Your task to perform on an android device: toggle improve location accuracy Image 0: 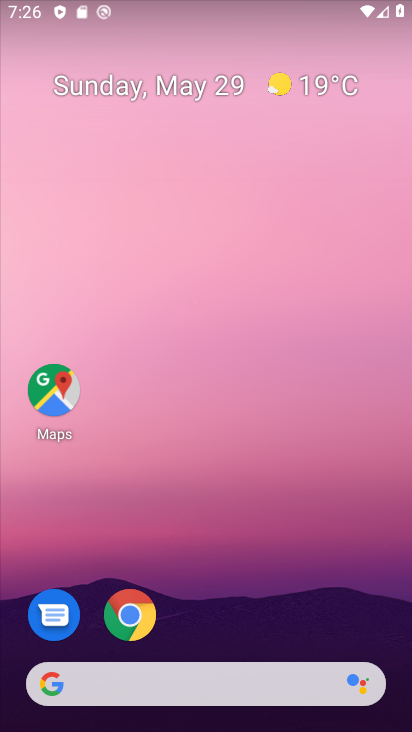
Step 0: drag from (129, 731) to (153, 6)
Your task to perform on an android device: toggle improve location accuracy Image 1: 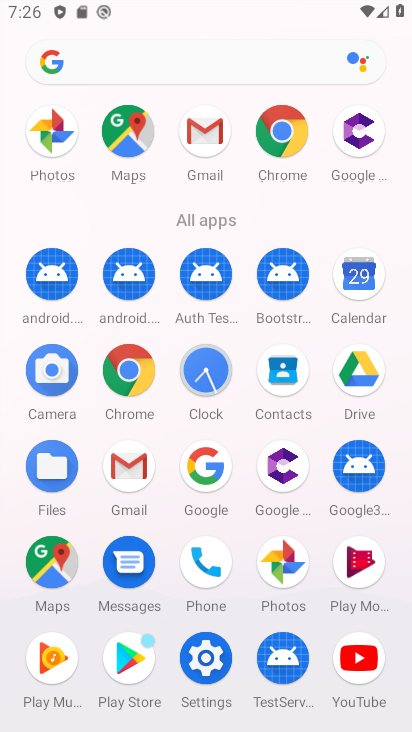
Step 1: click (194, 669)
Your task to perform on an android device: toggle improve location accuracy Image 2: 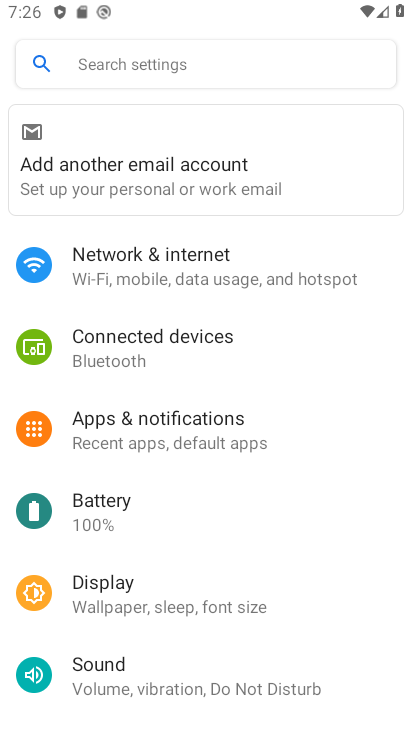
Step 2: drag from (330, 664) to (342, 287)
Your task to perform on an android device: toggle improve location accuracy Image 3: 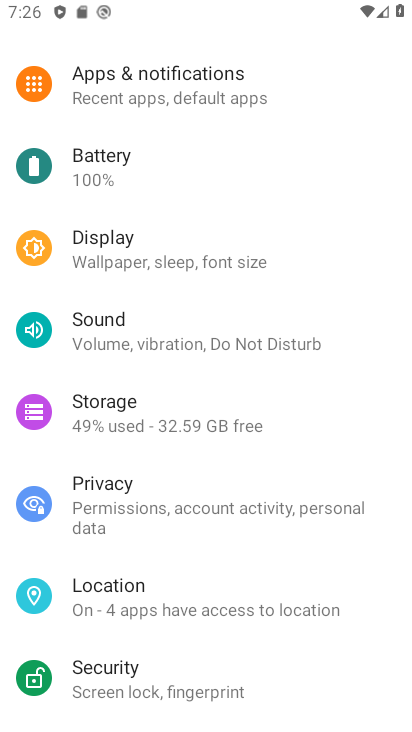
Step 3: click (150, 603)
Your task to perform on an android device: toggle improve location accuracy Image 4: 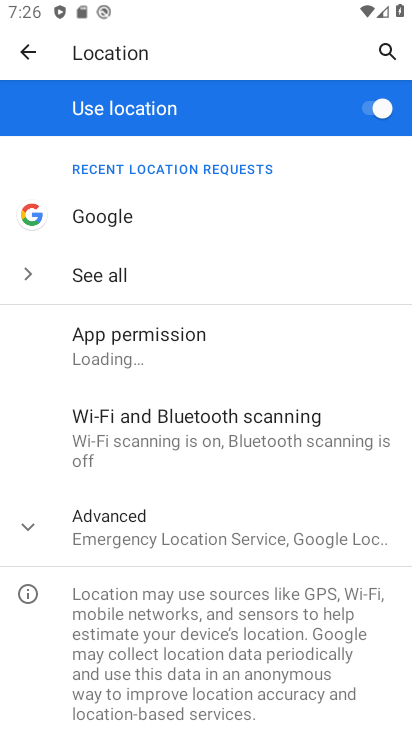
Step 4: click (171, 535)
Your task to perform on an android device: toggle improve location accuracy Image 5: 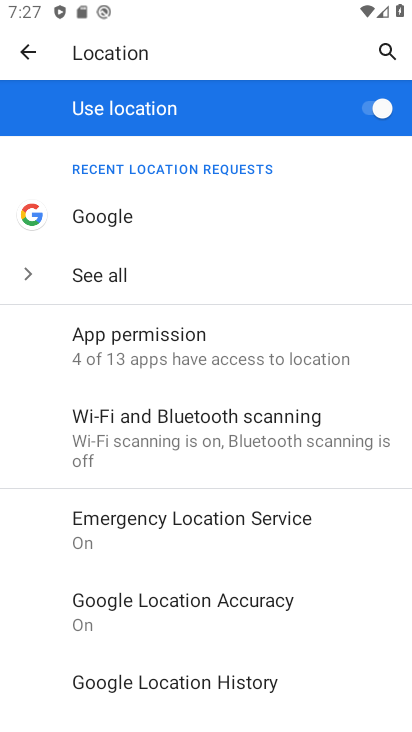
Step 5: drag from (196, 658) to (215, 311)
Your task to perform on an android device: toggle improve location accuracy Image 6: 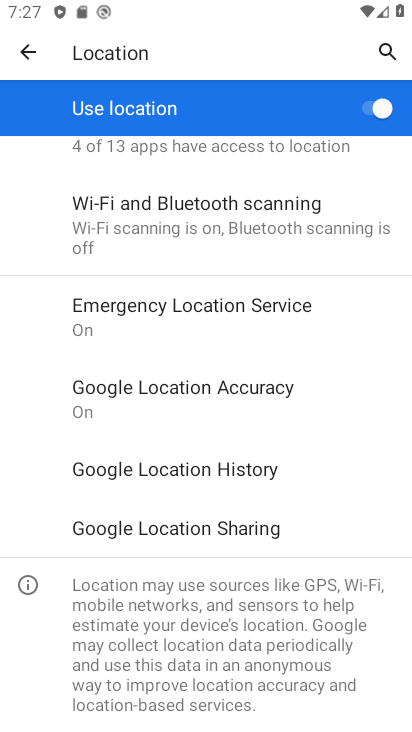
Step 6: click (187, 396)
Your task to perform on an android device: toggle improve location accuracy Image 7: 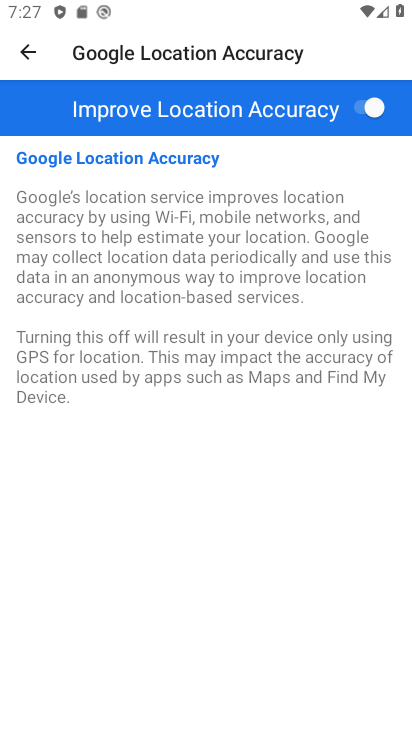
Step 7: click (369, 105)
Your task to perform on an android device: toggle improve location accuracy Image 8: 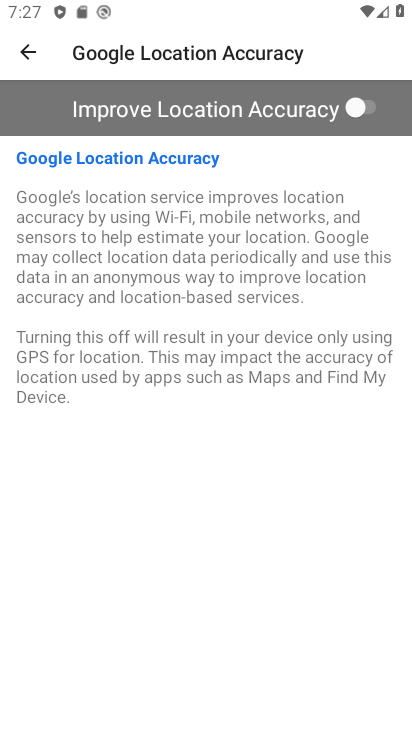
Step 8: click (13, 46)
Your task to perform on an android device: toggle improve location accuracy Image 9: 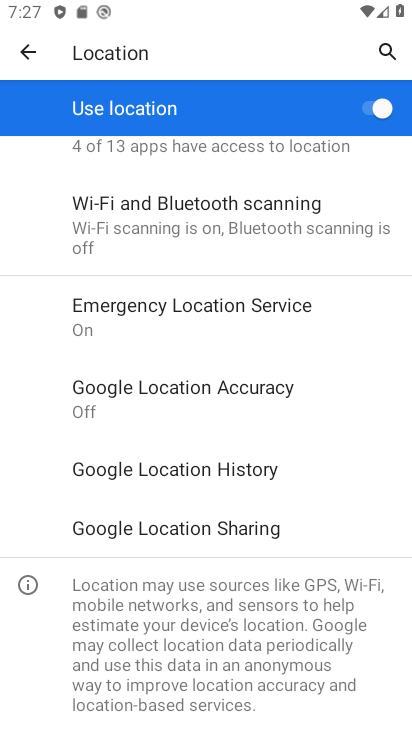
Step 9: task complete